Your task to perform on an android device: Open ESPN.com Image 0: 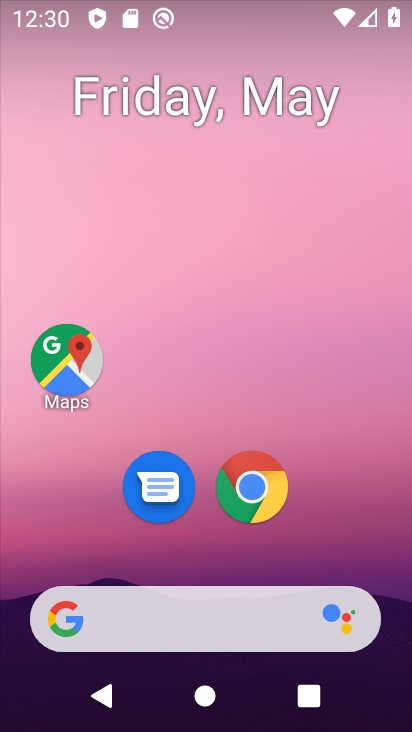
Step 0: click (271, 500)
Your task to perform on an android device: Open ESPN.com Image 1: 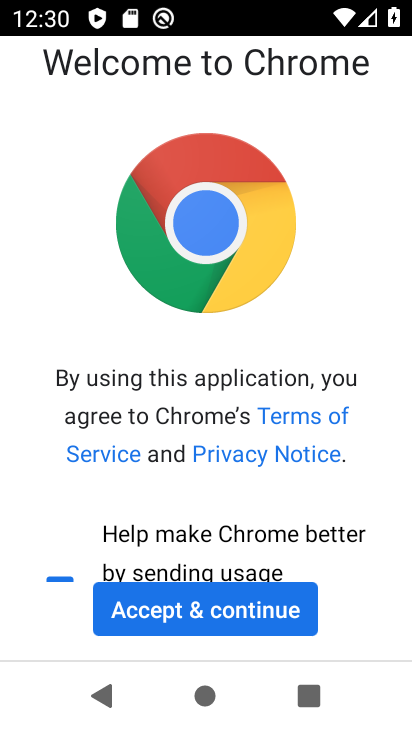
Step 1: click (240, 635)
Your task to perform on an android device: Open ESPN.com Image 2: 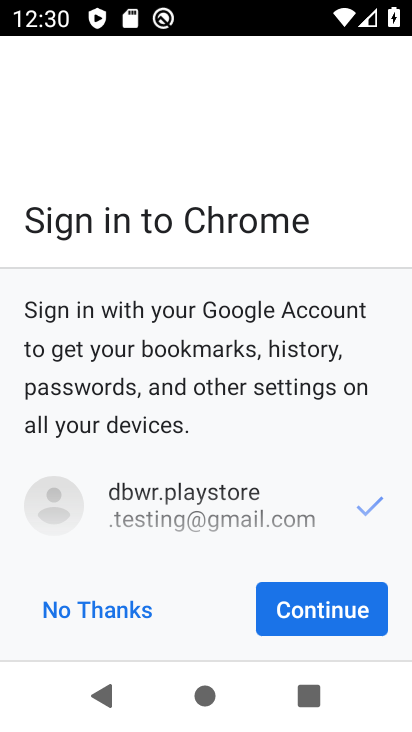
Step 2: click (303, 606)
Your task to perform on an android device: Open ESPN.com Image 3: 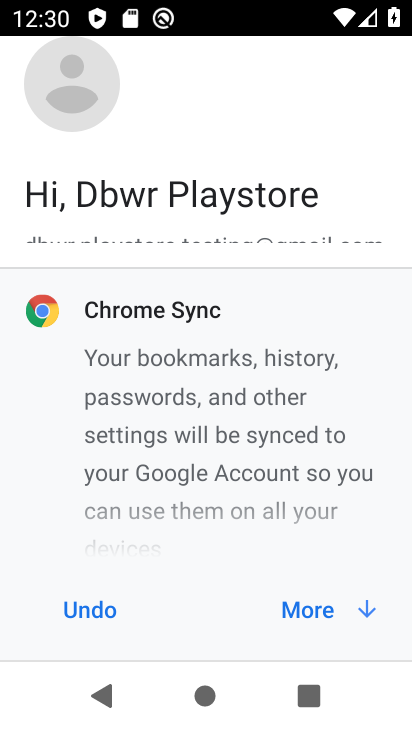
Step 3: click (319, 614)
Your task to perform on an android device: Open ESPN.com Image 4: 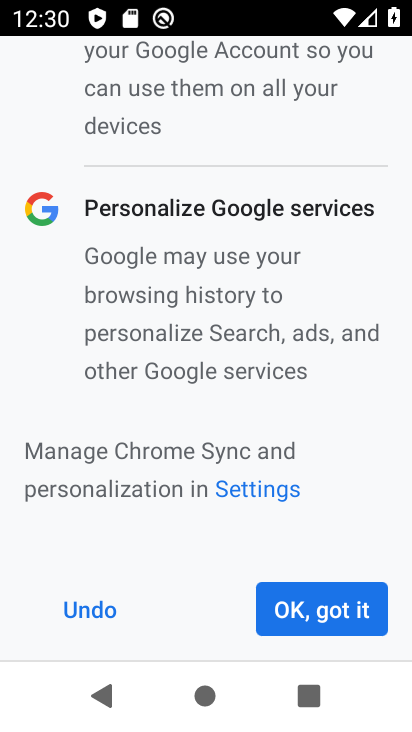
Step 4: click (319, 614)
Your task to perform on an android device: Open ESPN.com Image 5: 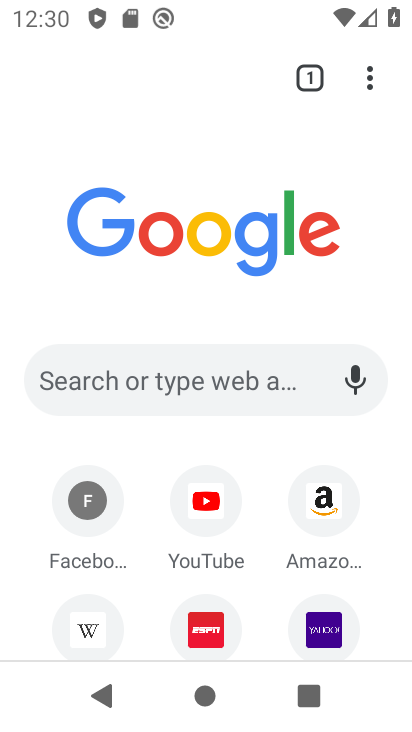
Step 5: drag from (115, 650) to (152, 504)
Your task to perform on an android device: Open ESPN.com Image 6: 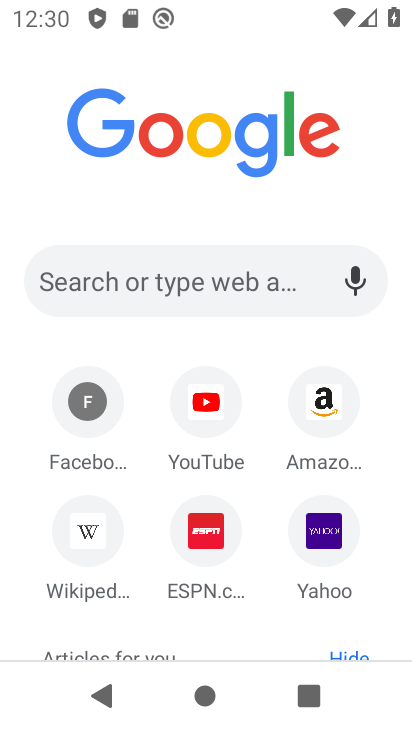
Step 6: click (209, 521)
Your task to perform on an android device: Open ESPN.com Image 7: 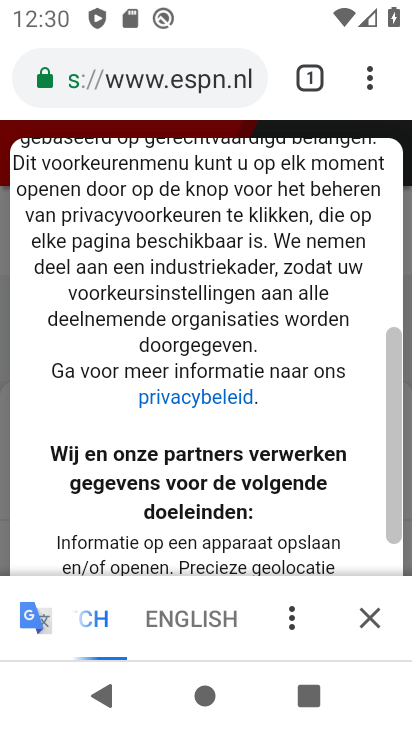
Step 7: task complete